Your task to perform on an android device: Search for "razer blade" on costco, select the first entry, and add it to the cart. Image 0: 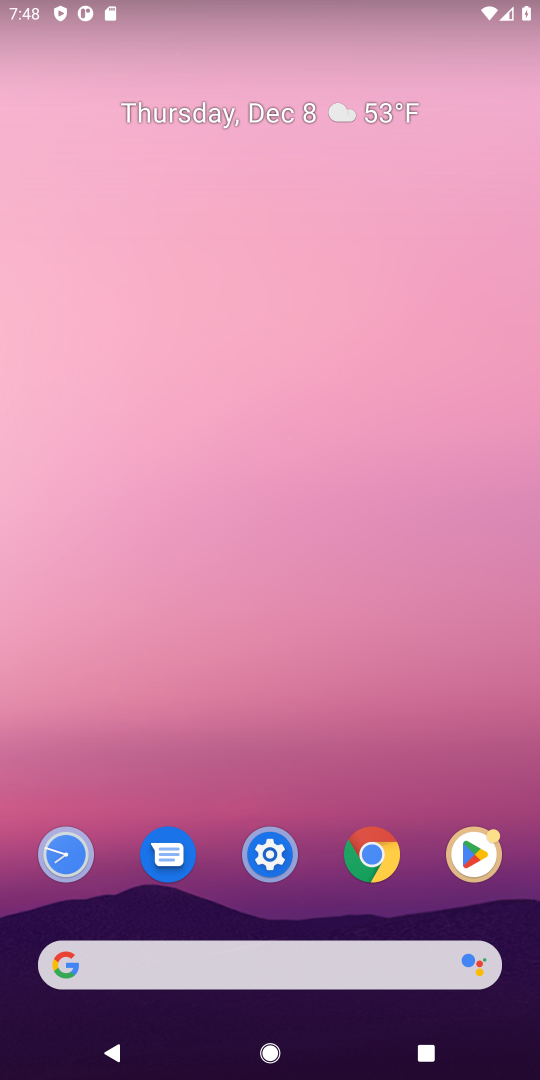
Step 0: press home button
Your task to perform on an android device: Search for "razer blade" on costco, select the first entry, and add it to the cart. Image 1: 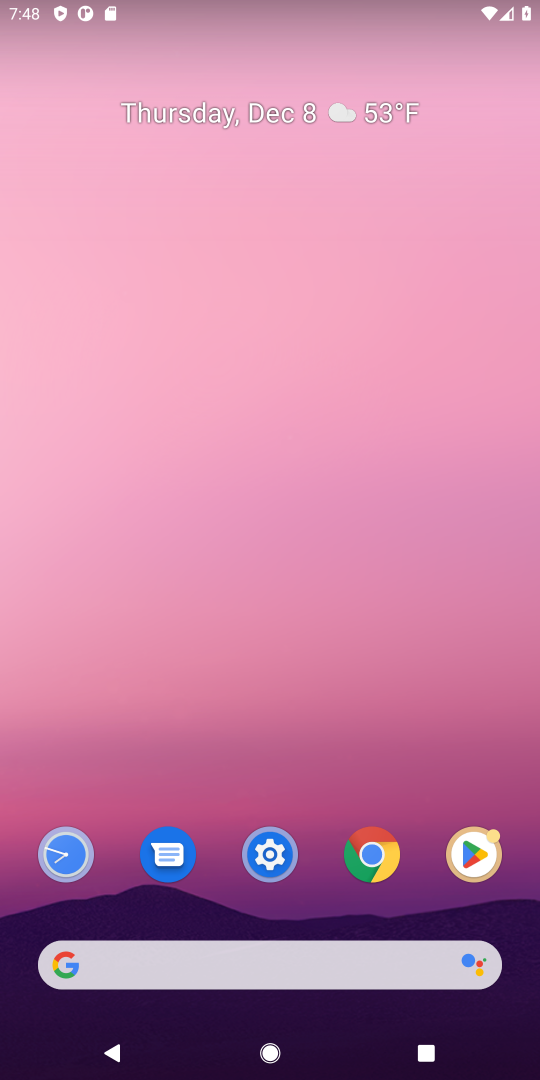
Step 1: click (91, 964)
Your task to perform on an android device: Search for "razer blade" on costco, select the first entry, and add it to the cart. Image 2: 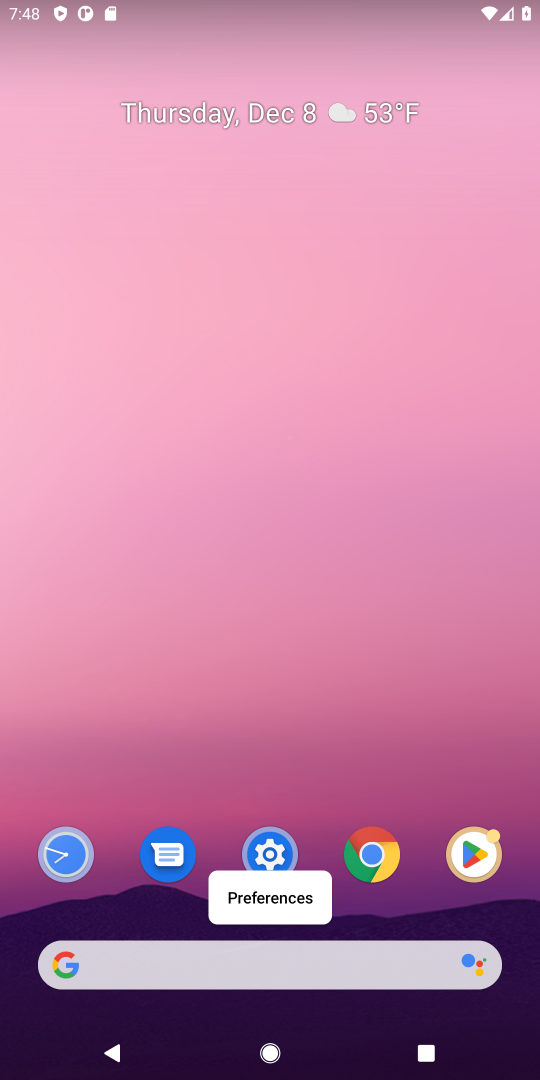
Step 2: click (102, 970)
Your task to perform on an android device: Search for "razer blade" on costco, select the first entry, and add it to the cart. Image 3: 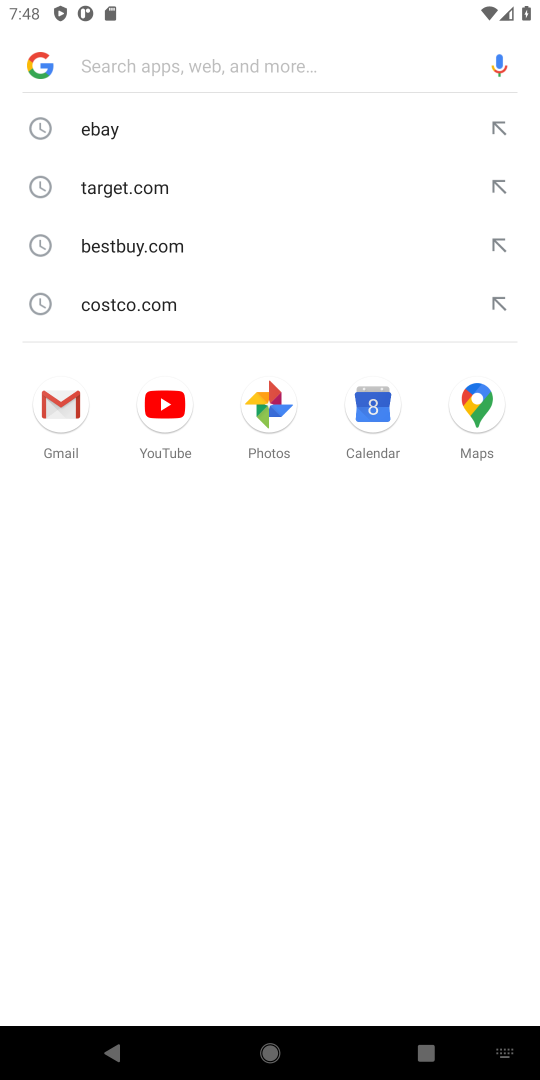
Step 3: type "costco"
Your task to perform on an android device: Search for "razer blade" on costco, select the first entry, and add it to the cart. Image 4: 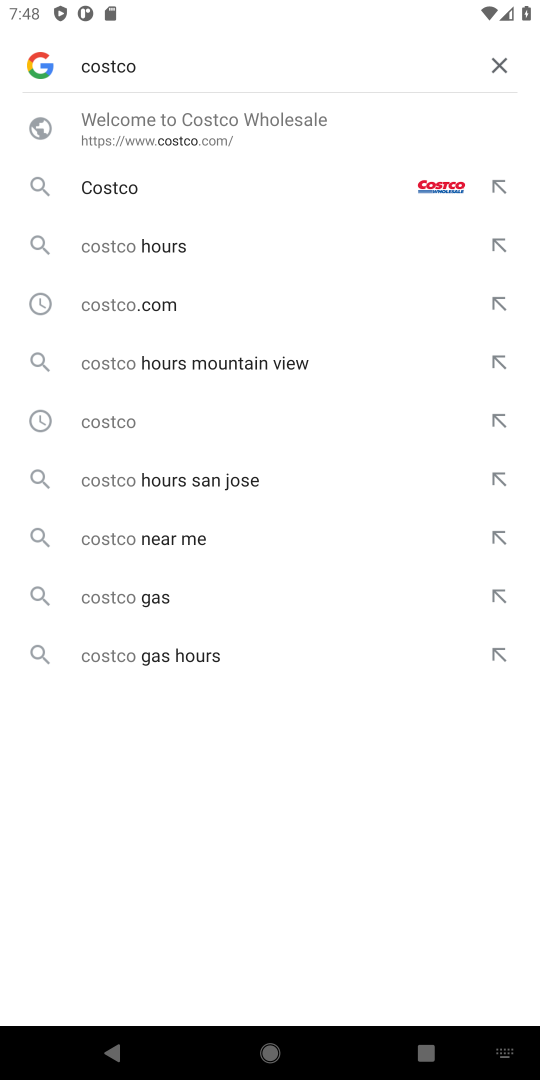
Step 4: press enter
Your task to perform on an android device: Search for "razer blade" on costco, select the first entry, and add it to the cart. Image 5: 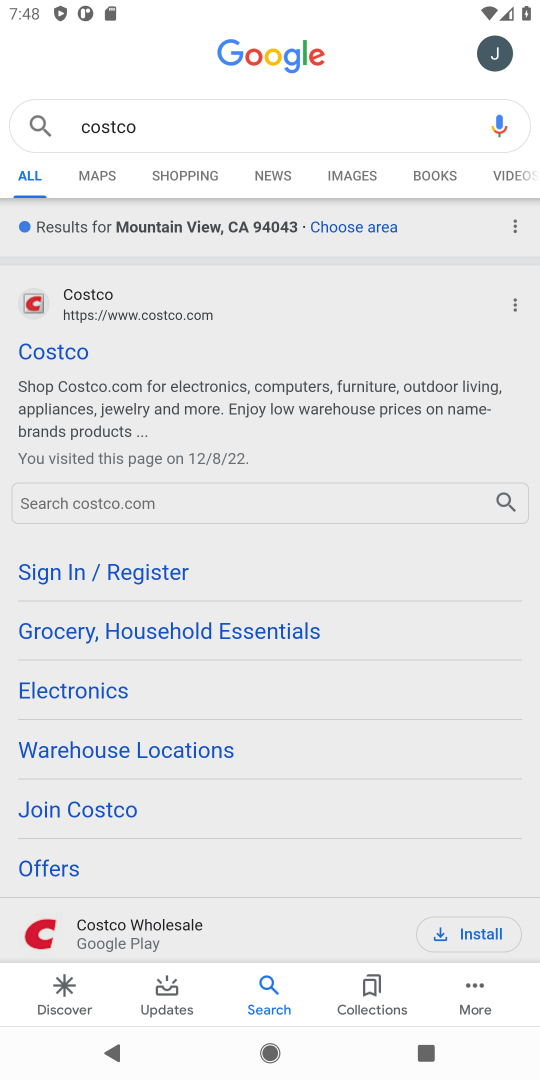
Step 5: click (47, 345)
Your task to perform on an android device: Search for "razer blade" on costco, select the first entry, and add it to the cart. Image 6: 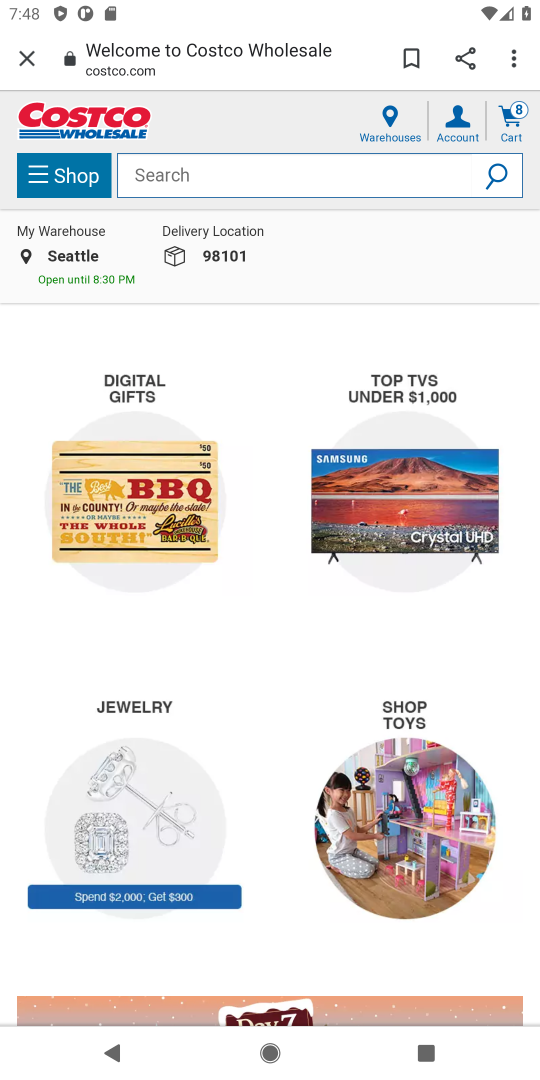
Step 6: click (280, 179)
Your task to perform on an android device: Search for "razer blade" on costco, select the first entry, and add it to the cart. Image 7: 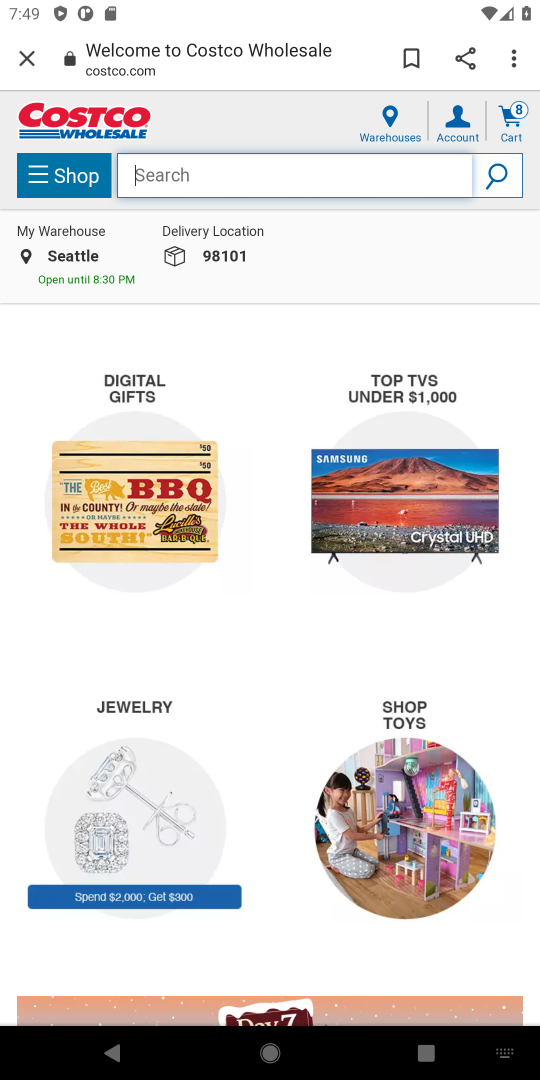
Step 7: type "razer blade"
Your task to perform on an android device: Search for "razer blade" on costco, select the first entry, and add it to the cart. Image 8: 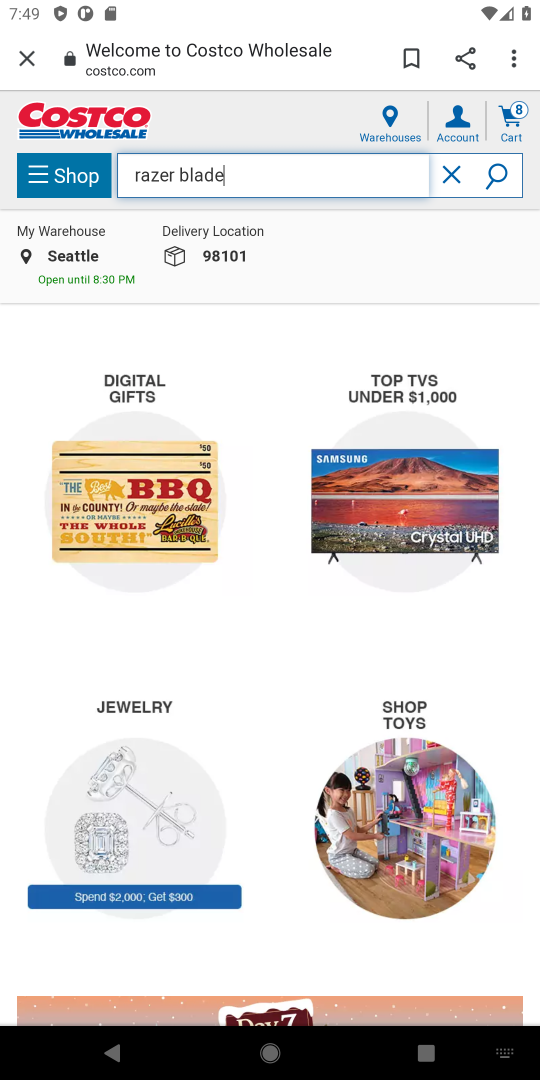
Step 8: press enter
Your task to perform on an android device: Search for "razer blade" on costco, select the first entry, and add it to the cart. Image 9: 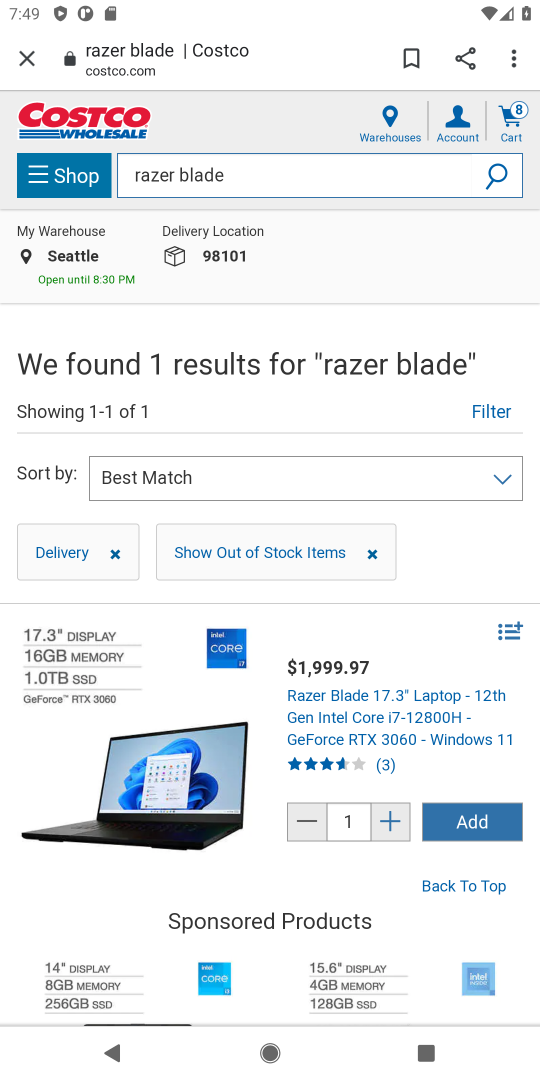
Step 9: click (472, 818)
Your task to perform on an android device: Search for "razer blade" on costco, select the first entry, and add it to the cart. Image 10: 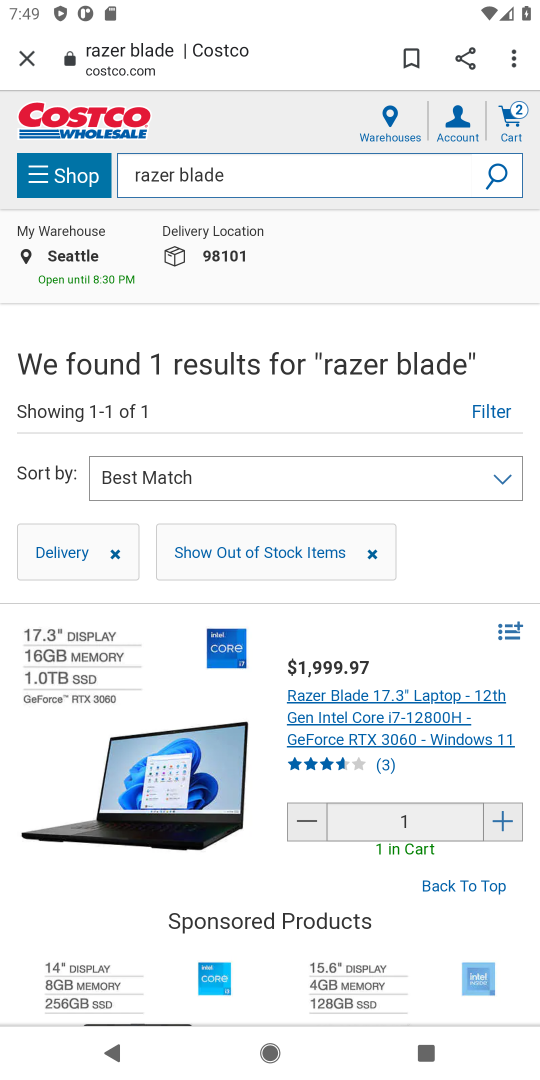
Step 10: task complete